Your task to perform on an android device: Open calendar and show me the second week of next month Image 0: 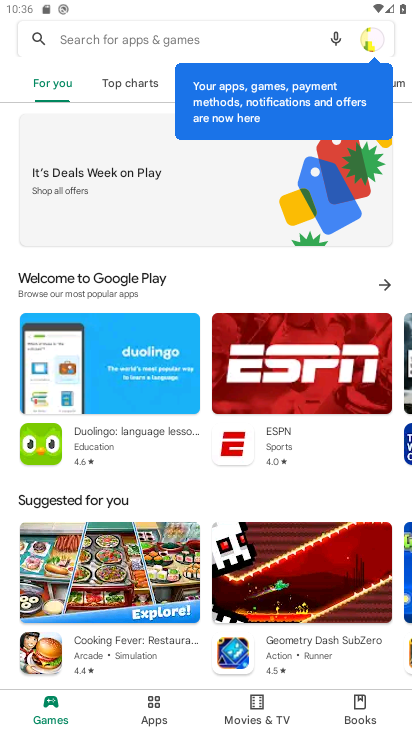
Step 0: press home button
Your task to perform on an android device: Open calendar and show me the second week of next month Image 1: 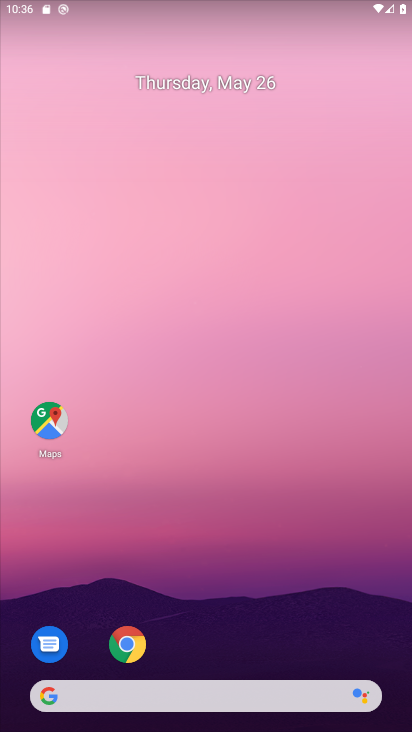
Step 1: drag from (368, 637) to (345, 108)
Your task to perform on an android device: Open calendar and show me the second week of next month Image 2: 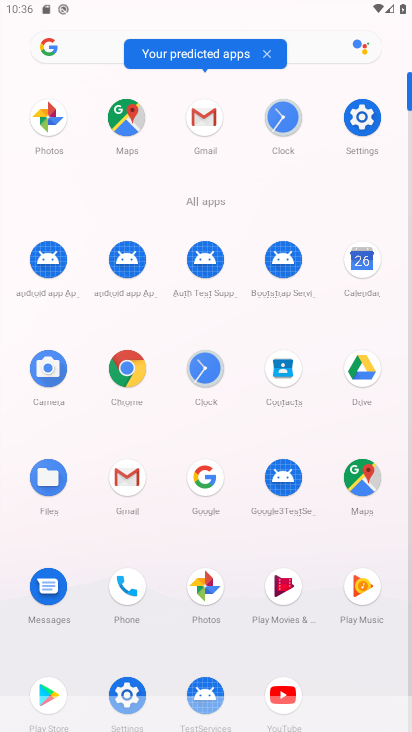
Step 2: click (359, 286)
Your task to perform on an android device: Open calendar and show me the second week of next month Image 3: 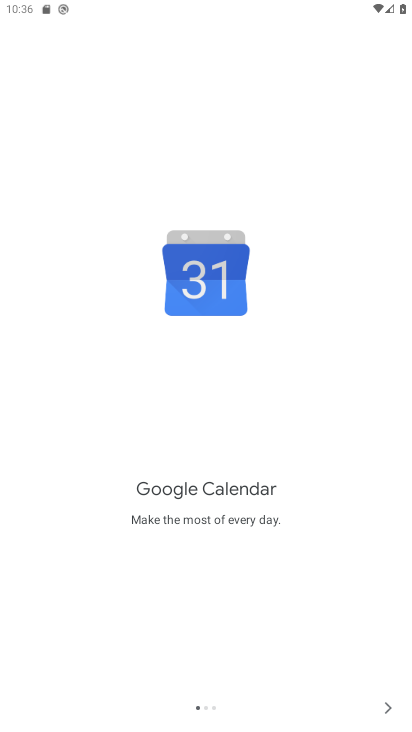
Step 3: click (386, 708)
Your task to perform on an android device: Open calendar and show me the second week of next month Image 4: 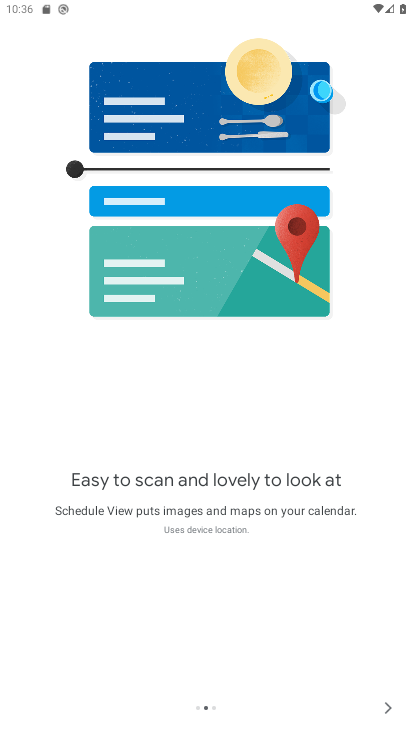
Step 4: click (386, 708)
Your task to perform on an android device: Open calendar and show me the second week of next month Image 5: 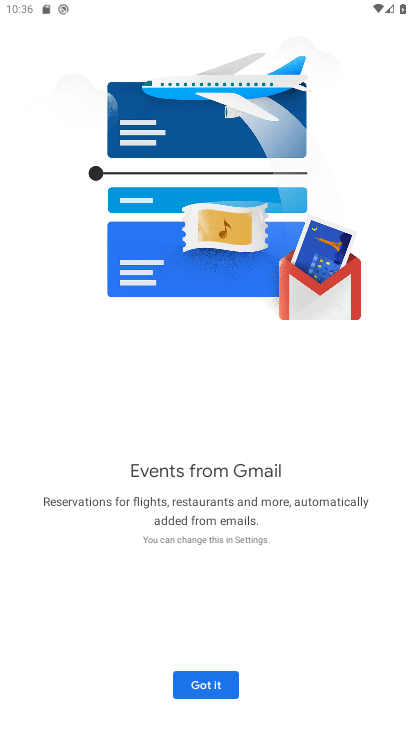
Step 5: click (235, 688)
Your task to perform on an android device: Open calendar and show me the second week of next month Image 6: 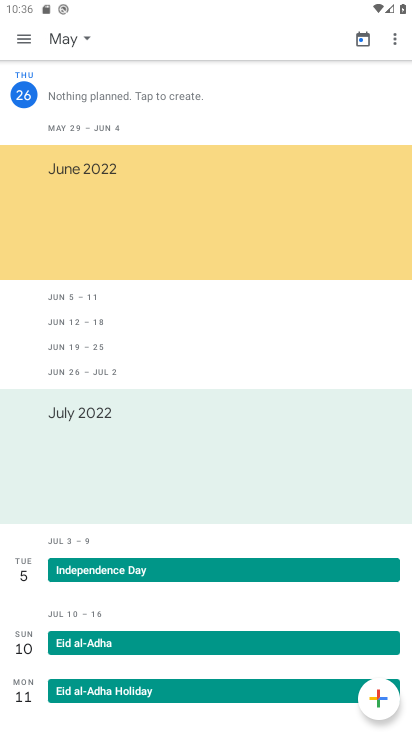
Step 6: click (80, 32)
Your task to perform on an android device: Open calendar and show me the second week of next month Image 7: 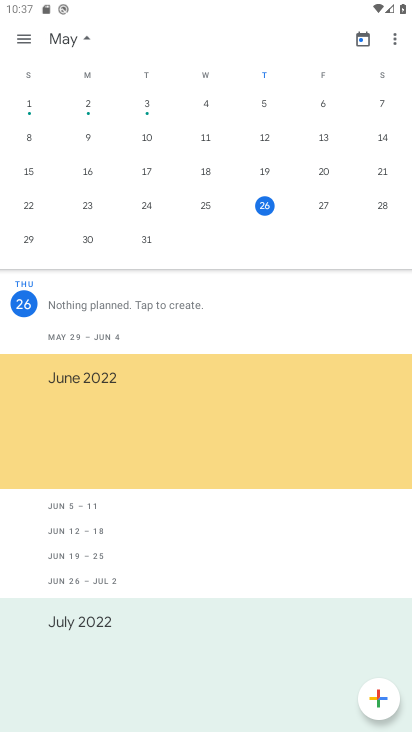
Step 7: drag from (381, 142) to (13, 135)
Your task to perform on an android device: Open calendar and show me the second week of next month Image 8: 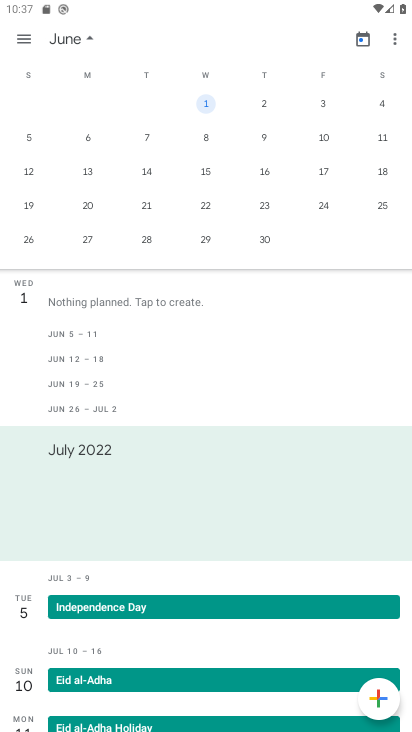
Step 8: click (144, 136)
Your task to perform on an android device: Open calendar and show me the second week of next month Image 9: 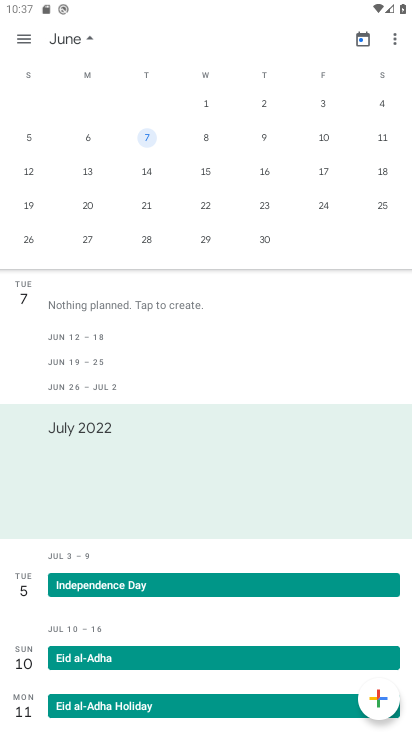
Step 9: task complete